Your task to perform on an android device: refresh tabs in the chrome app Image 0: 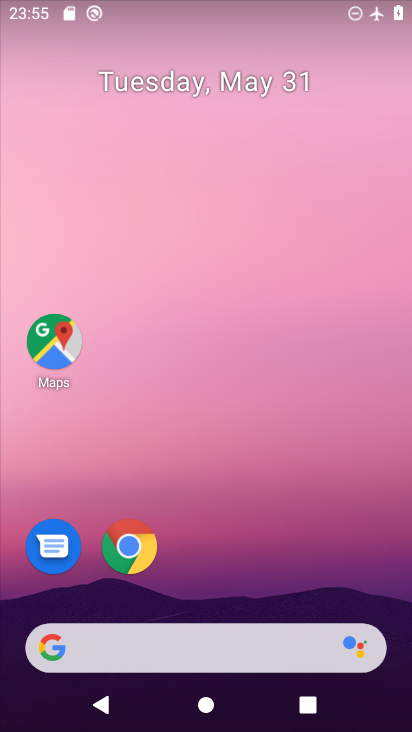
Step 0: drag from (404, 686) to (350, 160)
Your task to perform on an android device: refresh tabs in the chrome app Image 1: 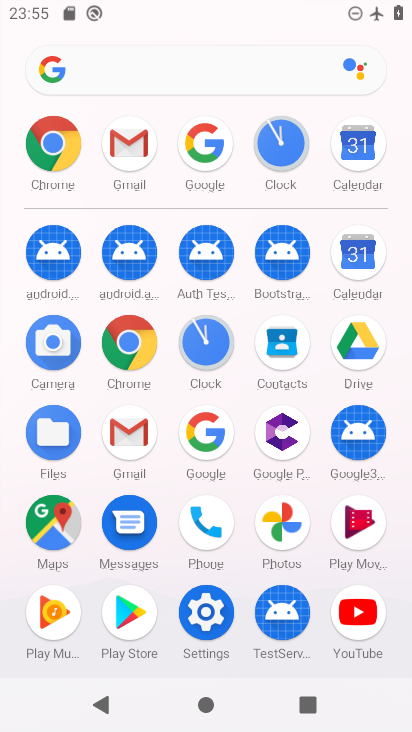
Step 1: click (127, 324)
Your task to perform on an android device: refresh tabs in the chrome app Image 2: 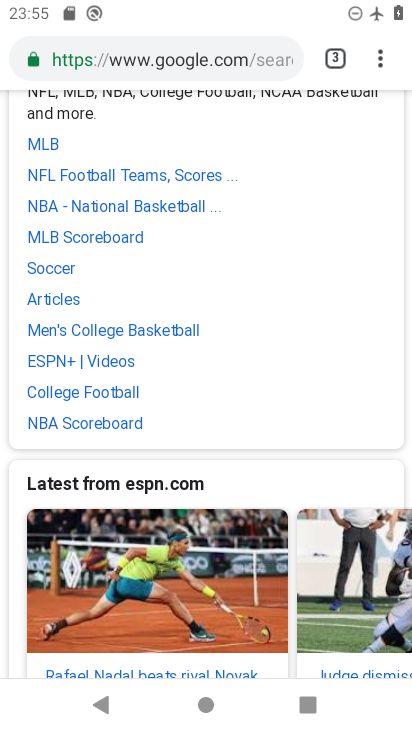
Step 2: drag from (267, 135) to (255, 602)
Your task to perform on an android device: refresh tabs in the chrome app Image 3: 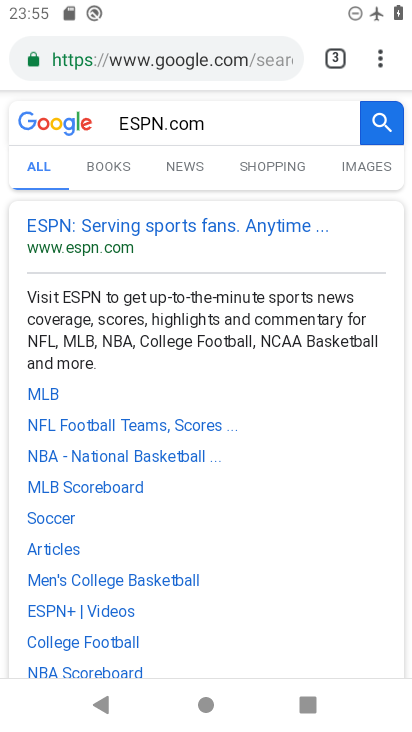
Step 3: click (379, 50)
Your task to perform on an android device: refresh tabs in the chrome app Image 4: 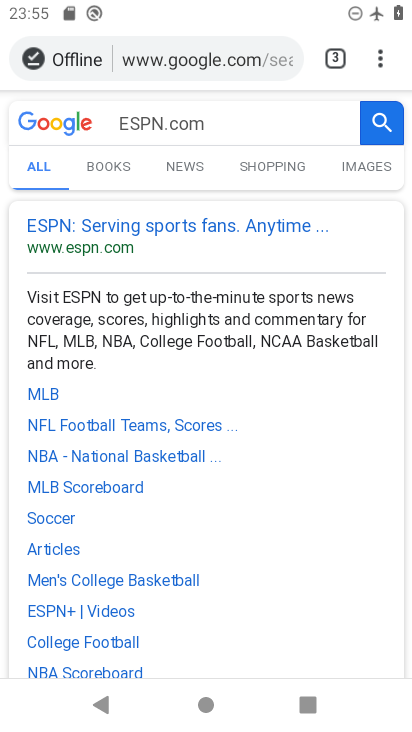
Step 4: click (379, 52)
Your task to perform on an android device: refresh tabs in the chrome app Image 5: 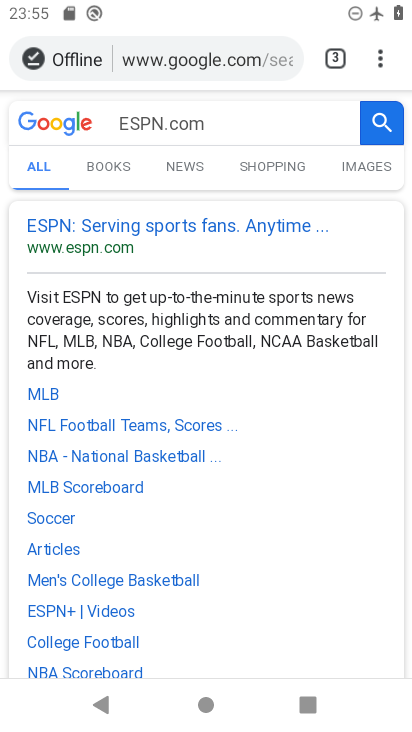
Step 5: click (379, 52)
Your task to perform on an android device: refresh tabs in the chrome app Image 6: 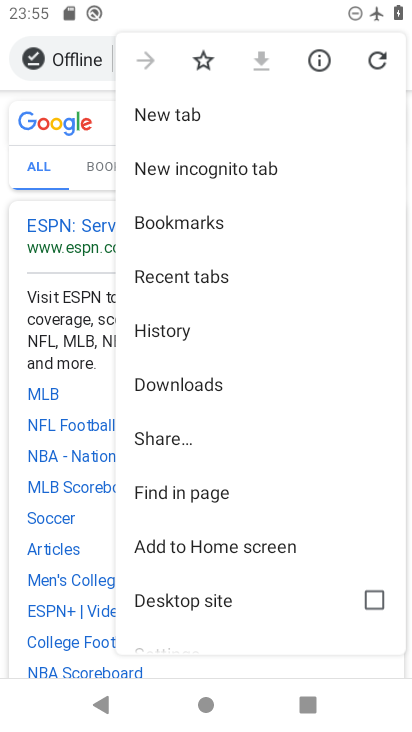
Step 6: click (374, 55)
Your task to perform on an android device: refresh tabs in the chrome app Image 7: 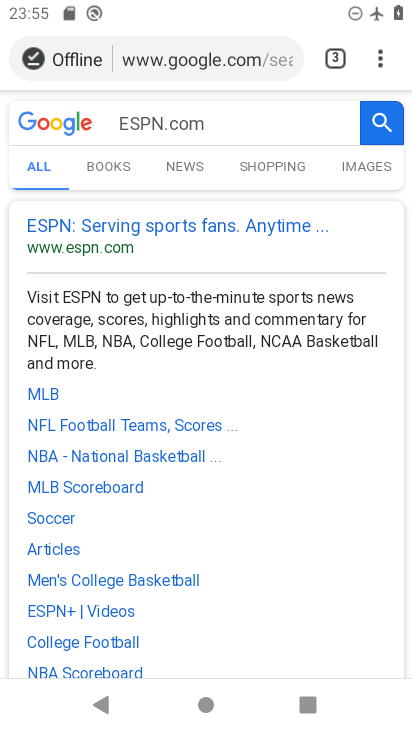
Step 7: task complete